Your task to perform on an android device: Do I have any events today? Image 0: 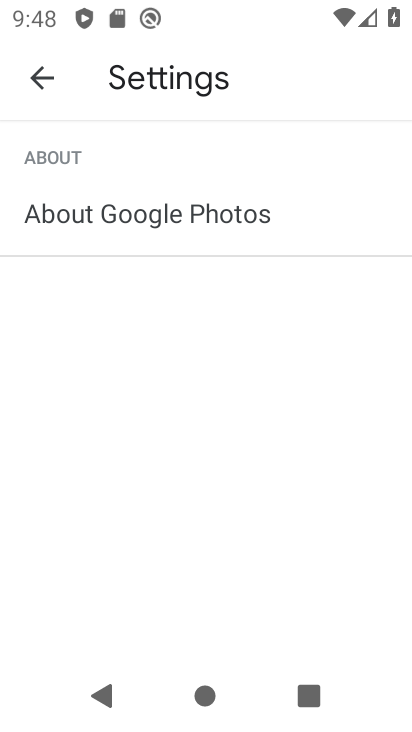
Step 0: press home button
Your task to perform on an android device: Do I have any events today? Image 1: 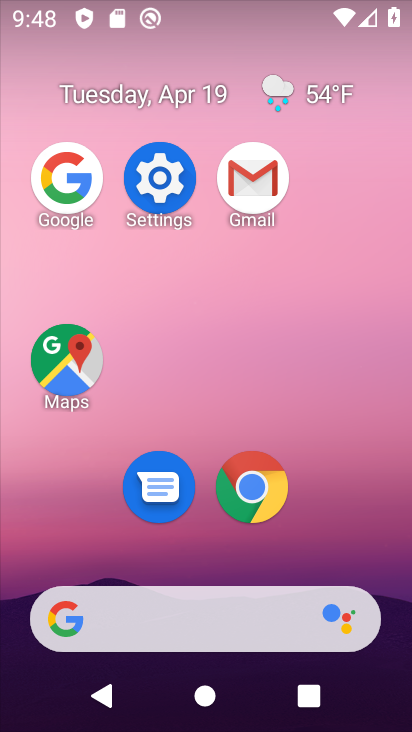
Step 1: drag from (223, 548) to (245, 29)
Your task to perform on an android device: Do I have any events today? Image 2: 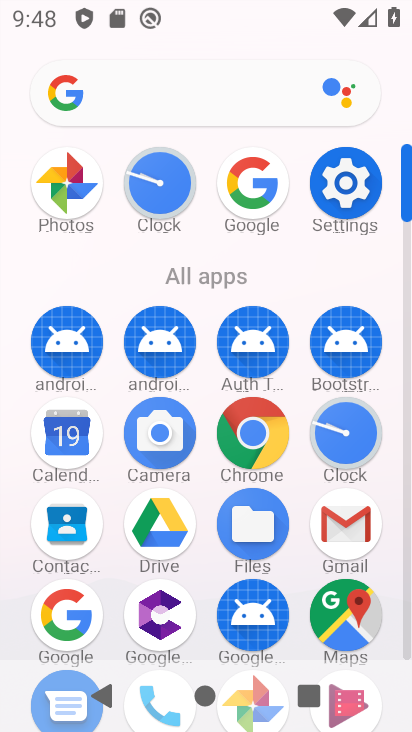
Step 2: click (70, 445)
Your task to perform on an android device: Do I have any events today? Image 3: 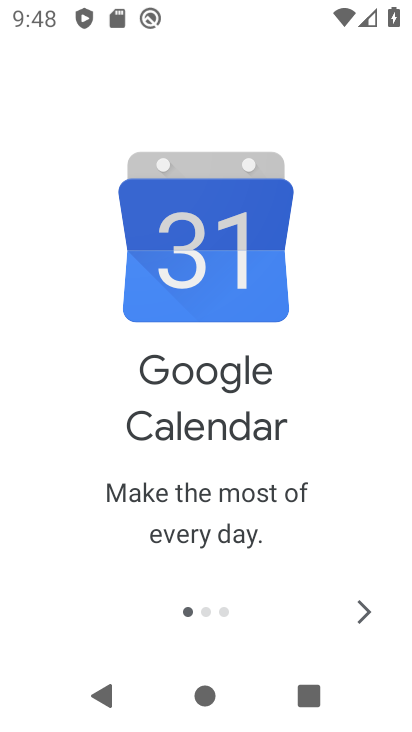
Step 3: click (365, 612)
Your task to perform on an android device: Do I have any events today? Image 4: 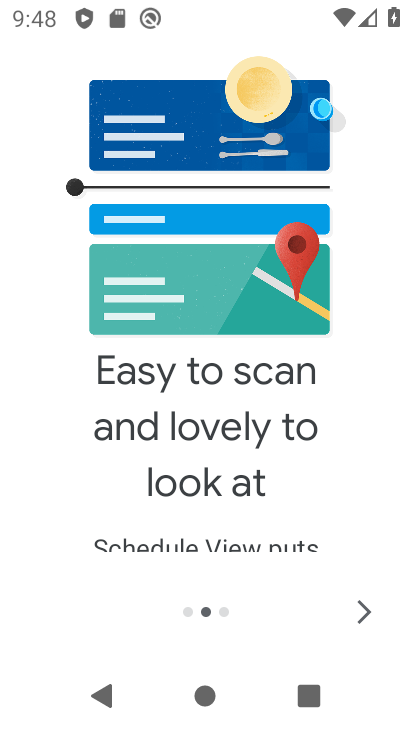
Step 4: click (354, 619)
Your task to perform on an android device: Do I have any events today? Image 5: 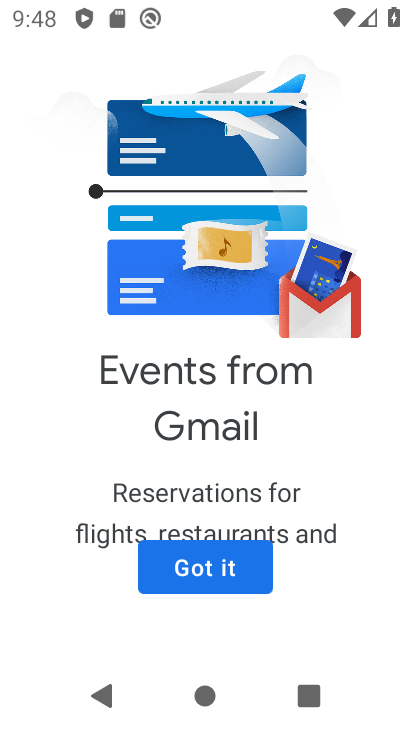
Step 5: click (192, 571)
Your task to perform on an android device: Do I have any events today? Image 6: 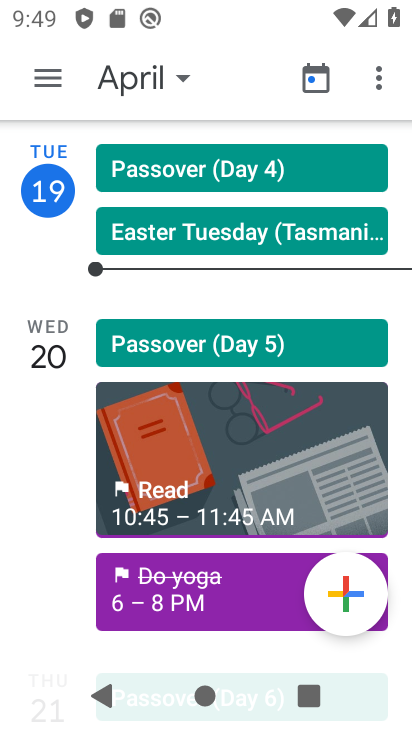
Step 6: click (47, 81)
Your task to perform on an android device: Do I have any events today? Image 7: 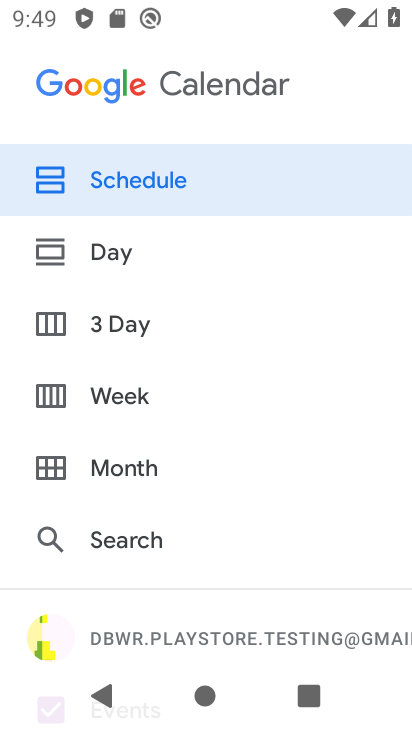
Step 7: click (132, 405)
Your task to perform on an android device: Do I have any events today? Image 8: 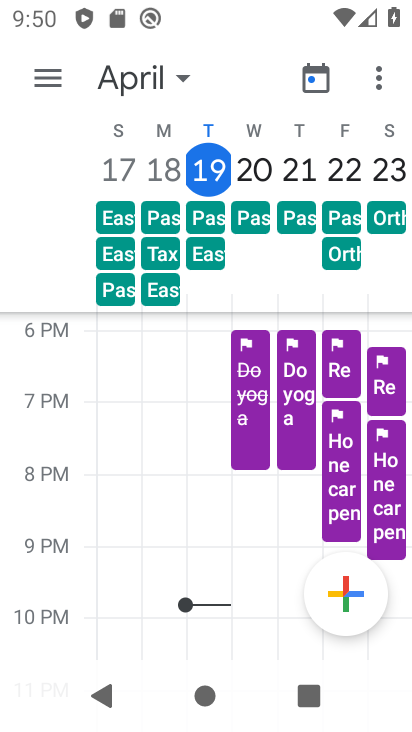
Step 8: task complete